Your task to perform on an android device: Open Youtube and go to the subscriptions tab Image 0: 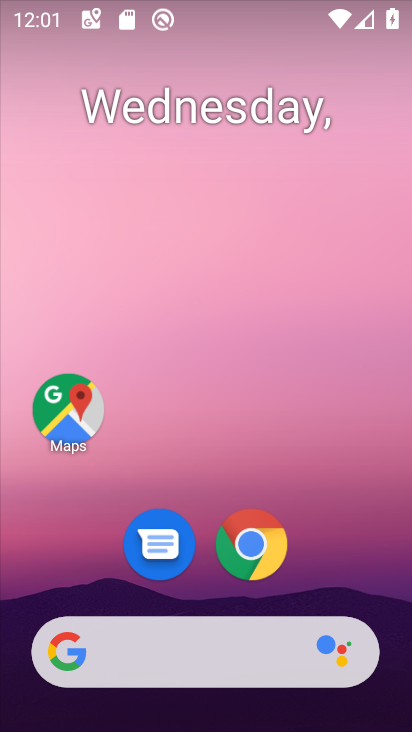
Step 0: drag from (219, 581) to (225, 276)
Your task to perform on an android device: Open Youtube and go to the subscriptions tab Image 1: 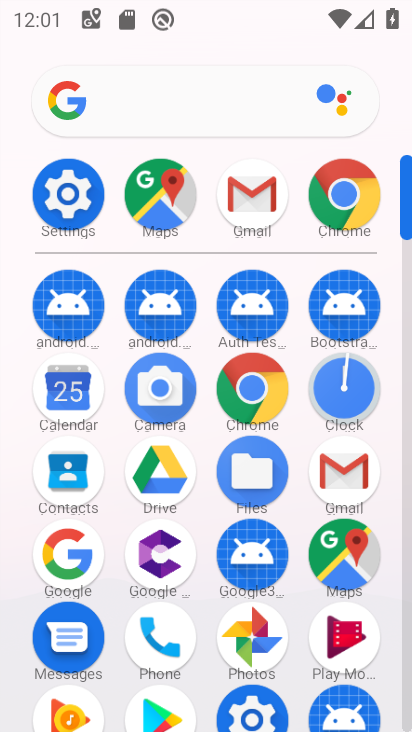
Step 1: drag from (195, 271) to (198, 93)
Your task to perform on an android device: Open Youtube and go to the subscriptions tab Image 2: 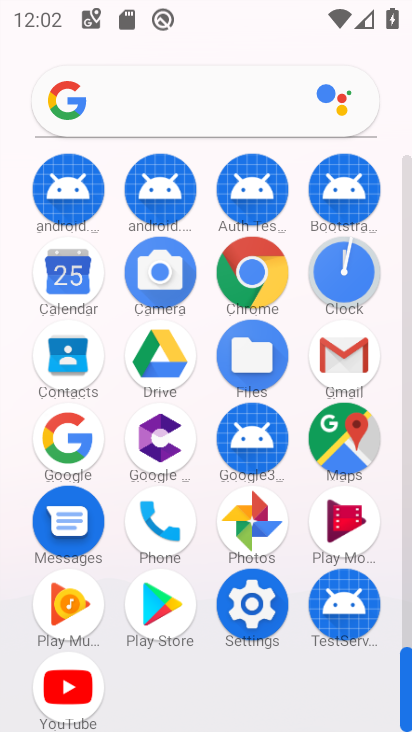
Step 2: drag from (175, 724) to (167, 629)
Your task to perform on an android device: Open Youtube and go to the subscriptions tab Image 3: 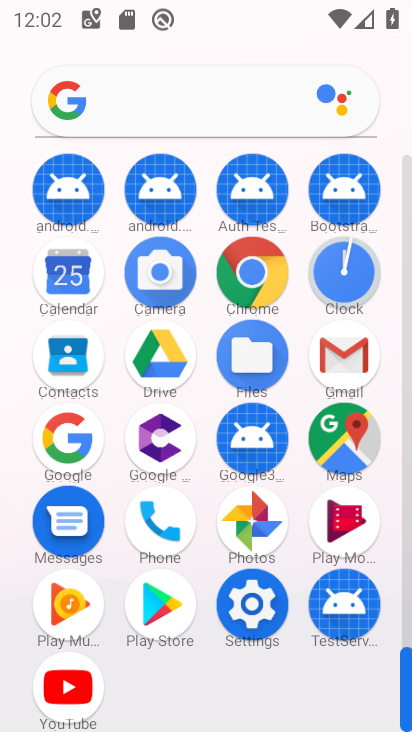
Step 3: click (48, 709)
Your task to perform on an android device: Open Youtube and go to the subscriptions tab Image 4: 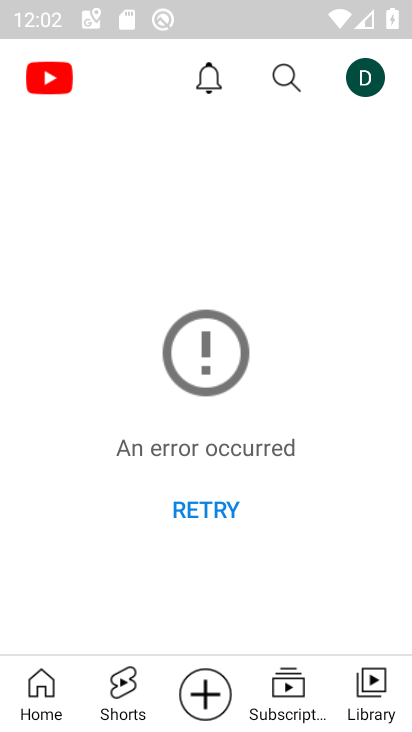
Step 4: click (289, 713)
Your task to perform on an android device: Open Youtube and go to the subscriptions tab Image 5: 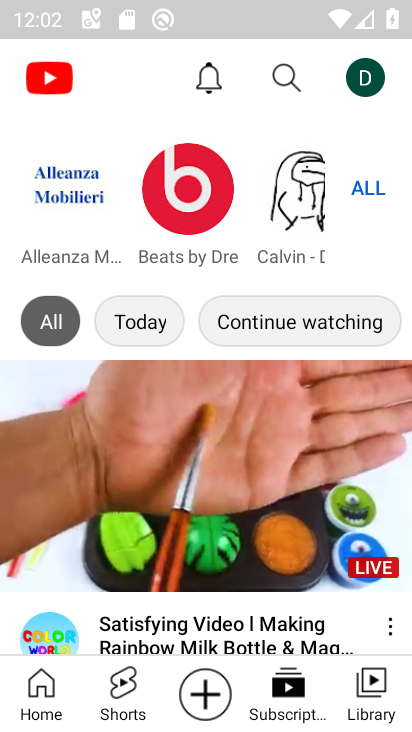
Step 5: task complete